Your task to perform on an android device: Go to calendar. Show me events next week Image 0: 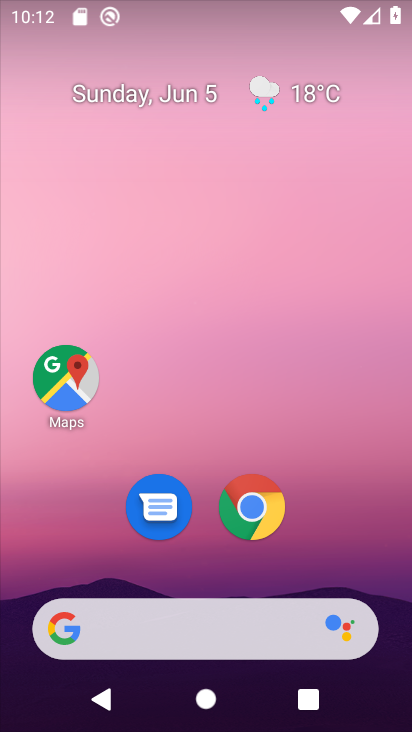
Step 0: drag from (206, 568) to (347, 25)
Your task to perform on an android device: Go to calendar. Show me events next week Image 1: 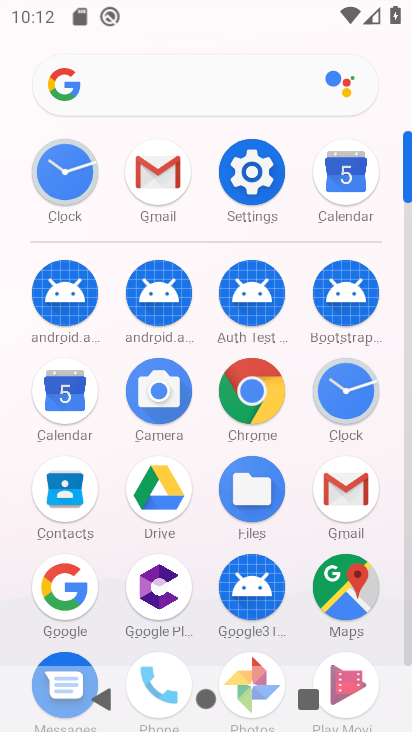
Step 1: click (70, 397)
Your task to perform on an android device: Go to calendar. Show me events next week Image 2: 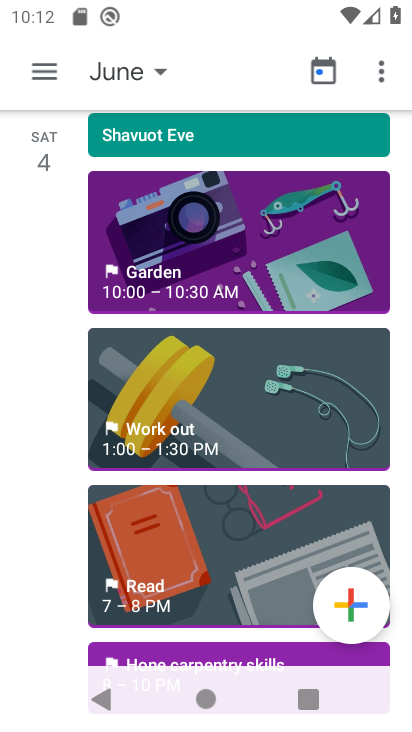
Step 2: click (47, 73)
Your task to perform on an android device: Go to calendar. Show me events next week Image 3: 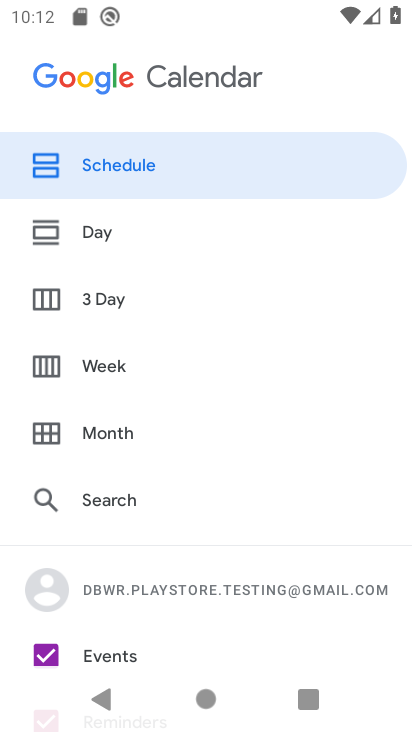
Step 3: drag from (107, 617) to (176, 331)
Your task to perform on an android device: Go to calendar. Show me events next week Image 4: 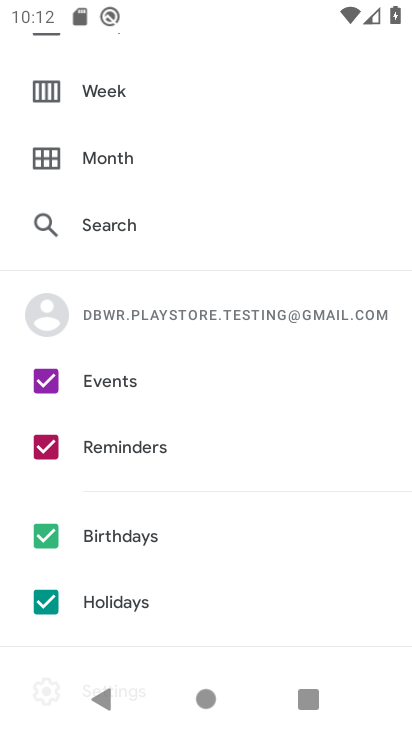
Step 4: click (73, 538)
Your task to perform on an android device: Go to calendar. Show me events next week Image 5: 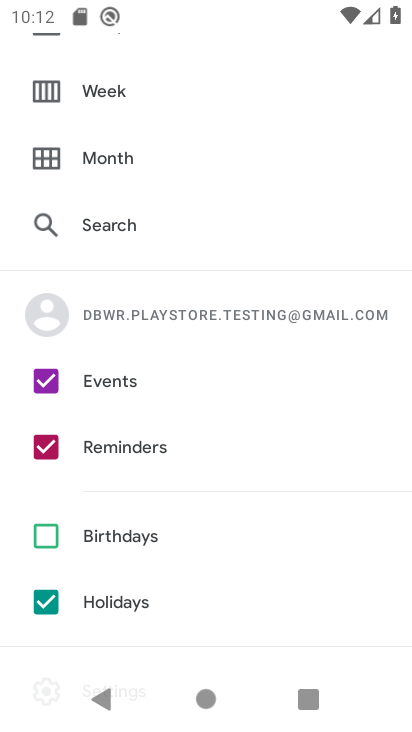
Step 5: click (68, 438)
Your task to perform on an android device: Go to calendar. Show me events next week Image 6: 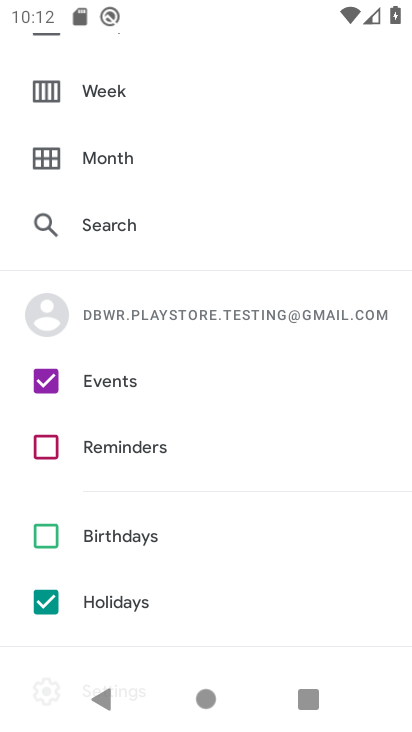
Step 6: click (95, 604)
Your task to perform on an android device: Go to calendar. Show me events next week Image 7: 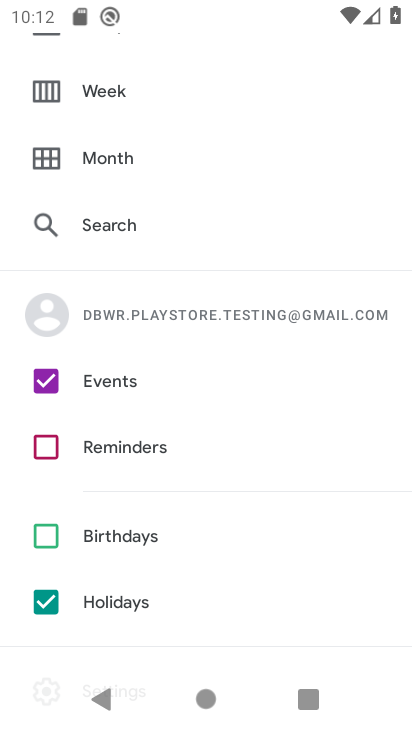
Step 7: click (82, 609)
Your task to perform on an android device: Go to calendar. Show me events next week Image 8: 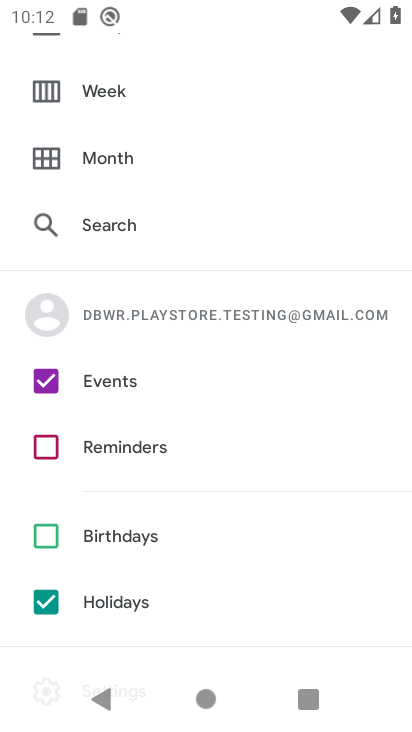
Step 8: click (36, 597)
Your task to perform on an android device: Go to calendar. Show me events next week Image 9: 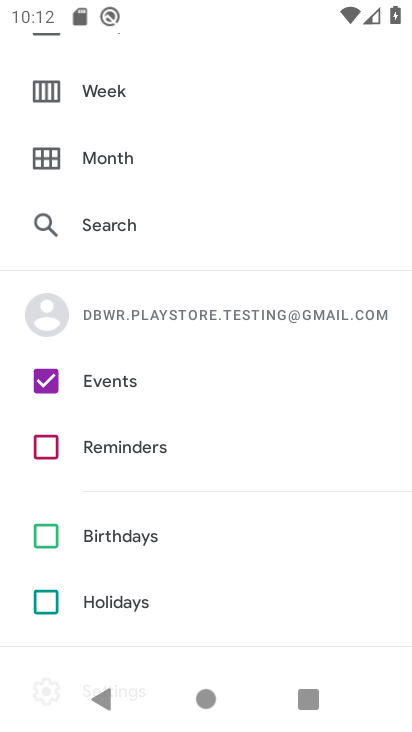
Step 9: click (111, 88)
Your task to perform on an android device: Go to calendar. Show me events next week Image 10: 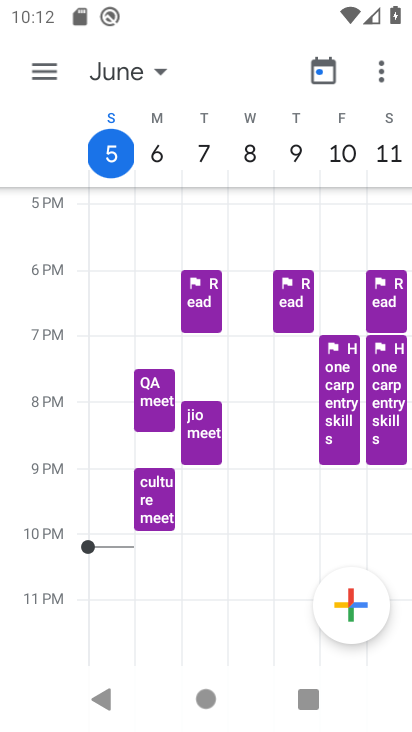
Step 10: task complete